Your task to perform on an android device: delete location history Image 0: 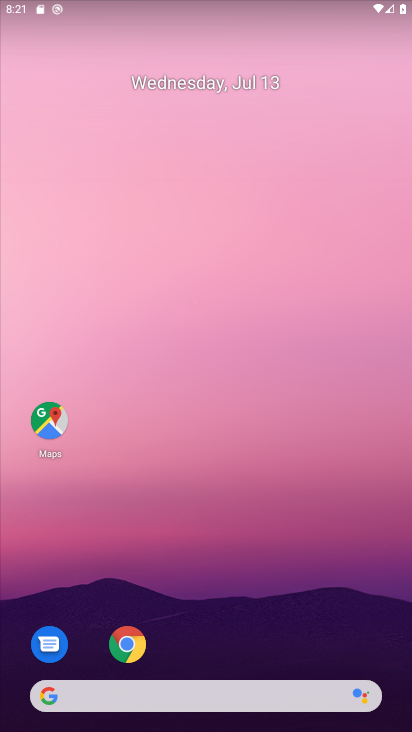
Step 0: click (47, 403)
Your task to perform on an android device: delete location history Image 1: 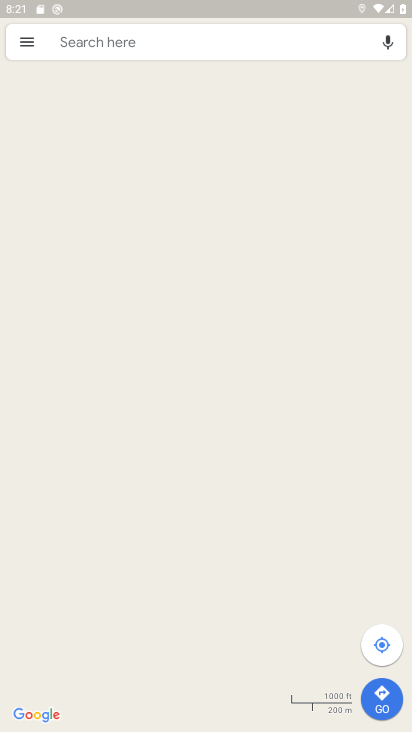
Step 1: click (28, 40)
Your task to perform on an android device: delete location history Image 2: 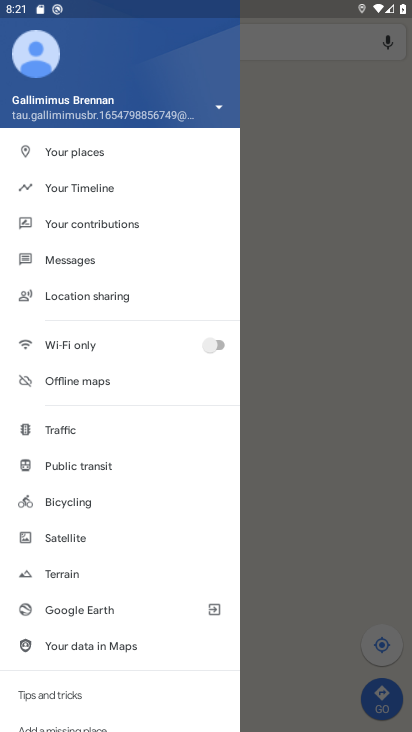
Step 2: click (55, 178)
Your task to perform on an android device: delete location history Image 3: 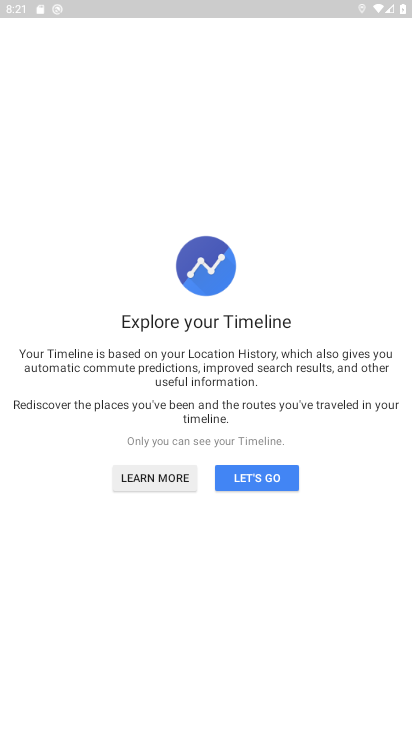
Step 3: click (270, 478)
Your task to perform on an android device: delete location history Image 4: 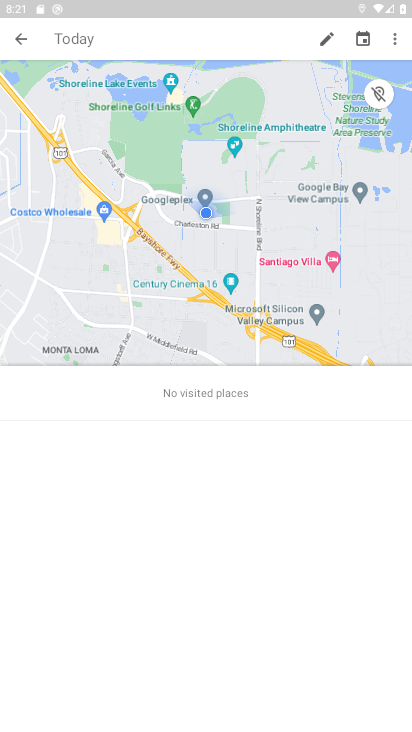
Step 4: click (391, 35)
Your task to perform on an android device: delete location history Image 5: 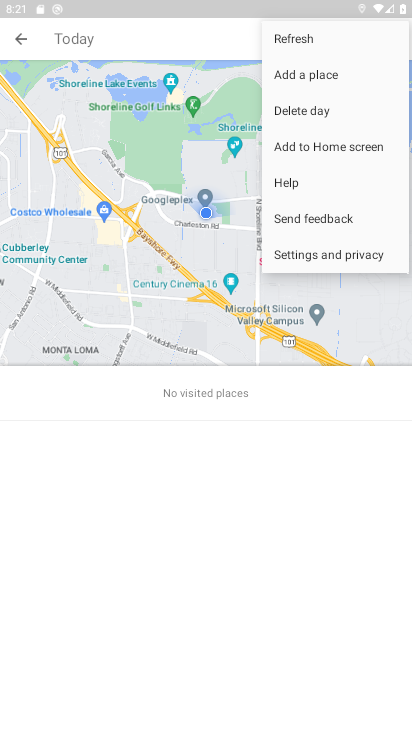
Step 5: click (327, 240)
Your task to perform on an android device: delete location history Image 6: 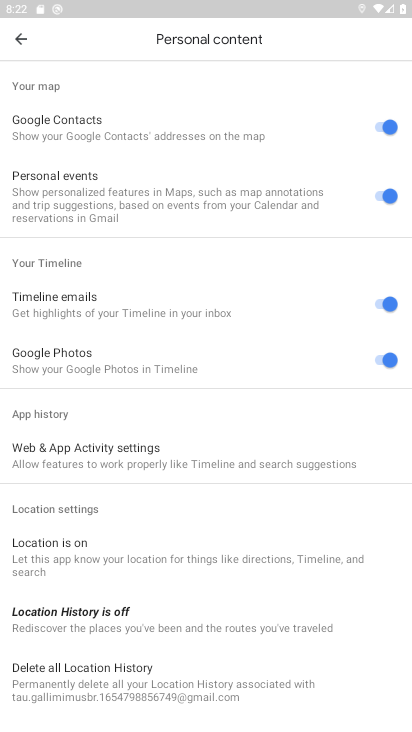
Step 6: click (98, 705)
Your task to perform on an android device: delete location history Image 7: 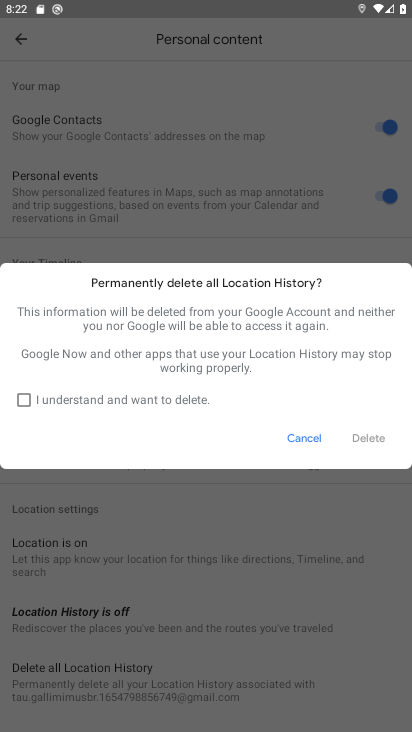
Step 7: click (93, 414)
Your task to perform on an android device: delete location history Image 8: 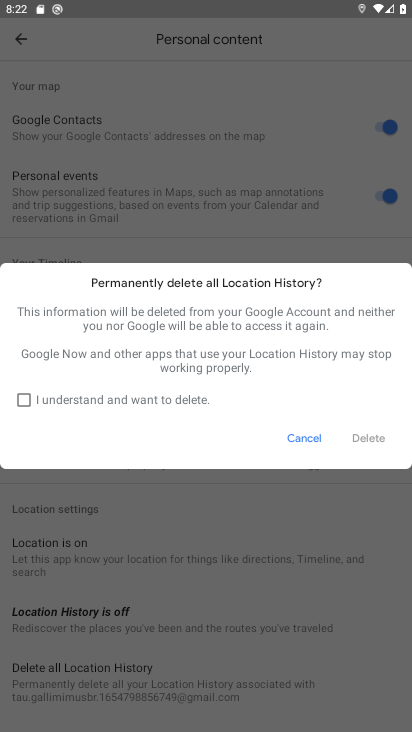
Step 8: click (70, 403)
Your task to perform on an android device: delete location history Image 9: 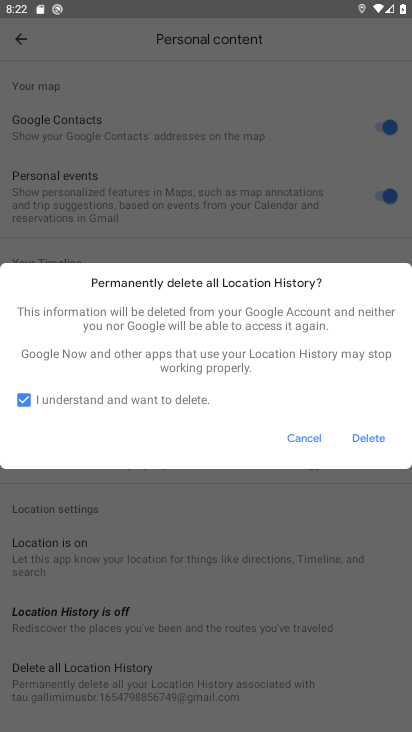
Step 9: click (378, 434)
Your task to perform on an android device: delete location history Image 10: 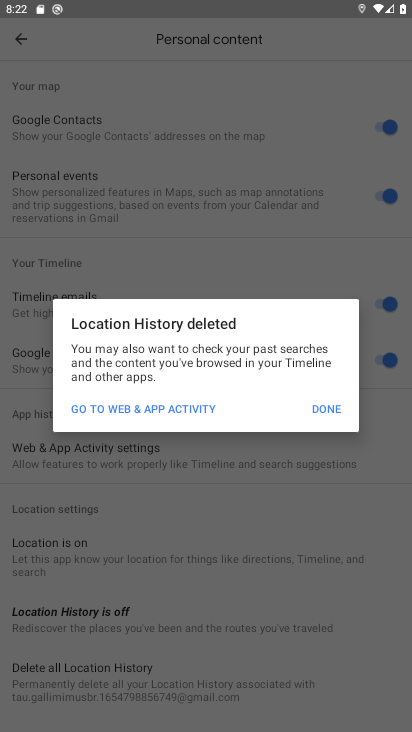
Step 10: click (320, 404)
Your task to perform on an android device: delete location history Image 11: 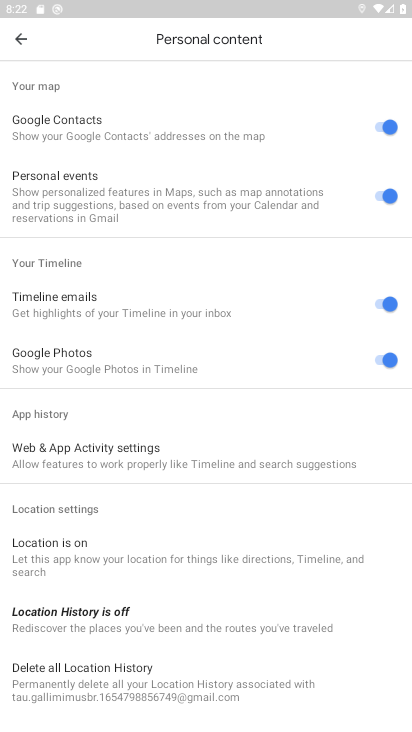
Step 11: task complete